Your task to perform on an android device: open a new tab in the chrome app Image 0: 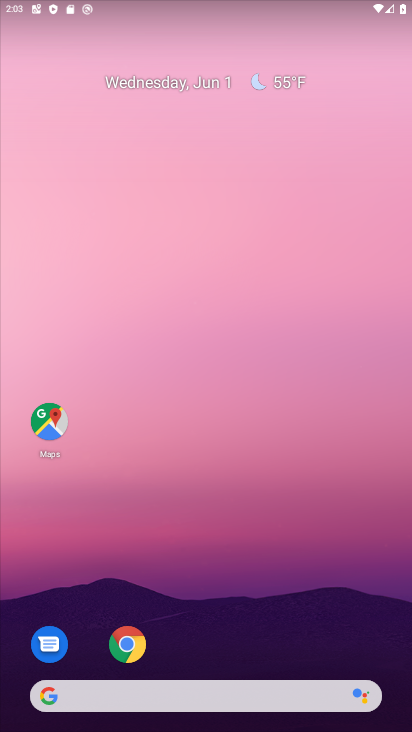
Step 0: click (127, 647)
Your task to perform on an android device: open a new tab in the chrome app Image 1: 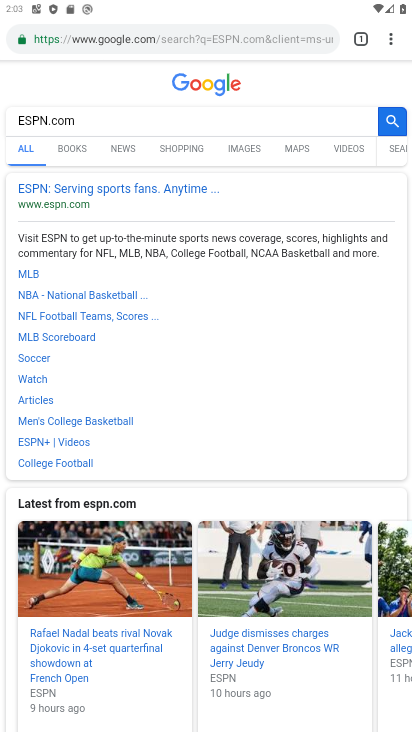
Step 1: click (388, 37)
Your task to perform on an android device: open a new tab in the chrome app Image 2: 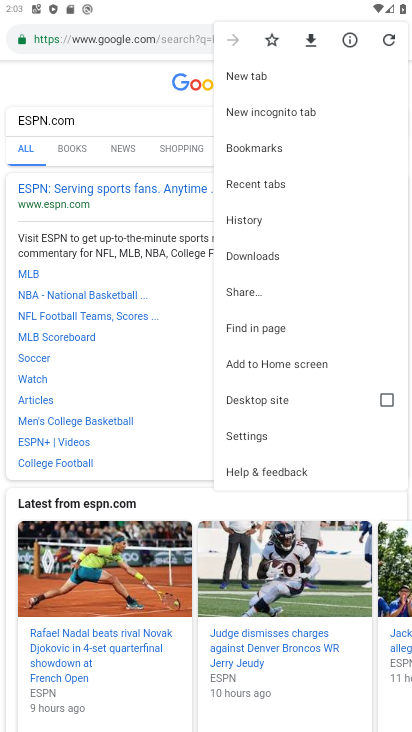
Step 2: click (252, 77)
Your task to perform on an android device: open a new tab in the chrome app Image 3: 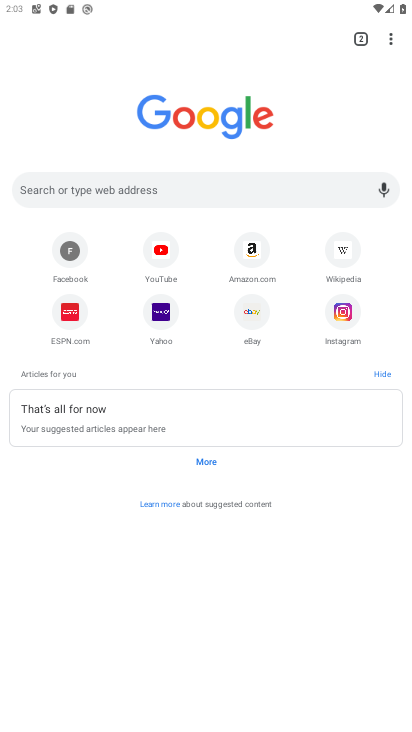
Step 3: task complete